Your task to perform on an android device: set the stopwatch Image 0: 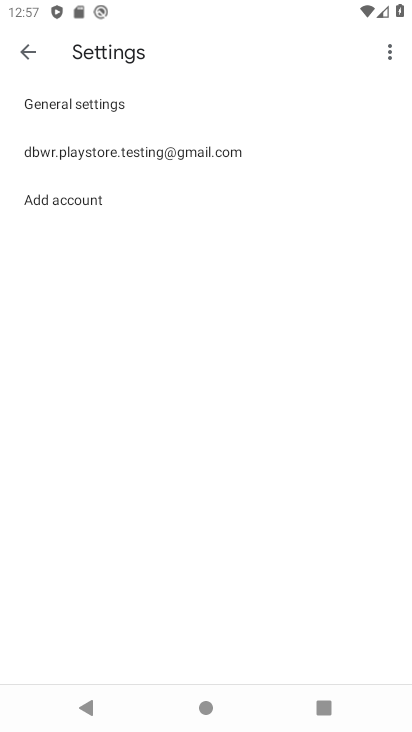
Step 0: press home button
Your task to perform on an android device: set the stopwatch Image 1: 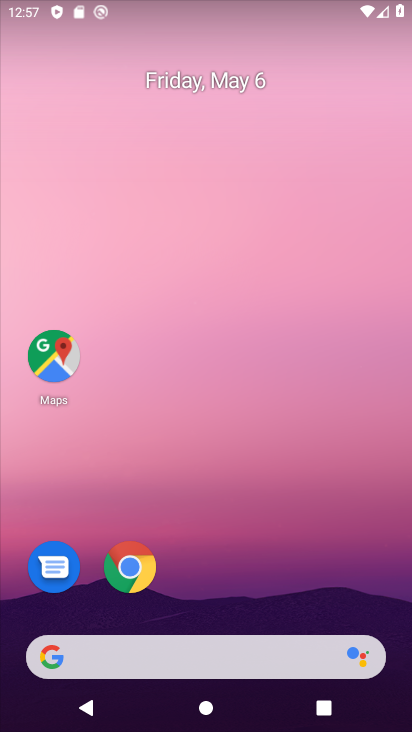
Step 1: drag from (280, 679) to (226, 280)
Your task to perform on an android device: set the stopwatch Image 2: 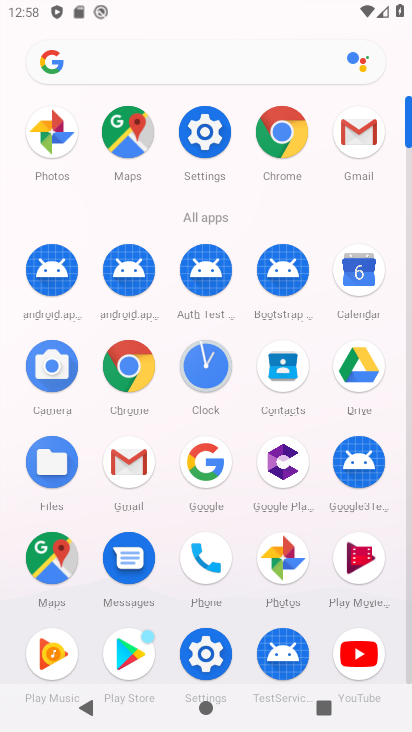
Step 2: click (186, 147)
Your task to perform on an android device: set the stopwatch Image 3: 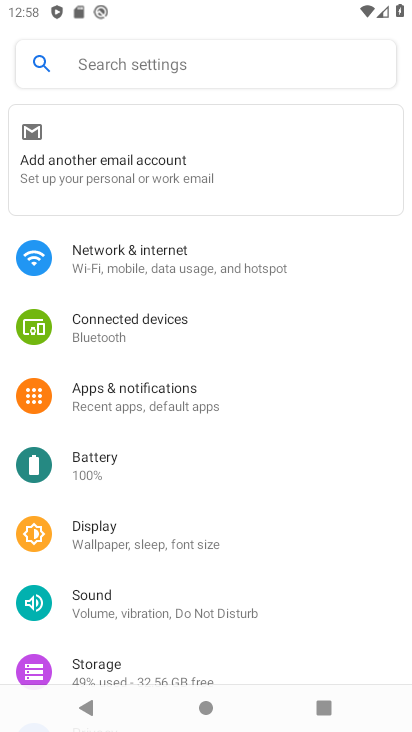
Step 3: press home button
Your task to perform on an android device: set the stopwatch Image 4: 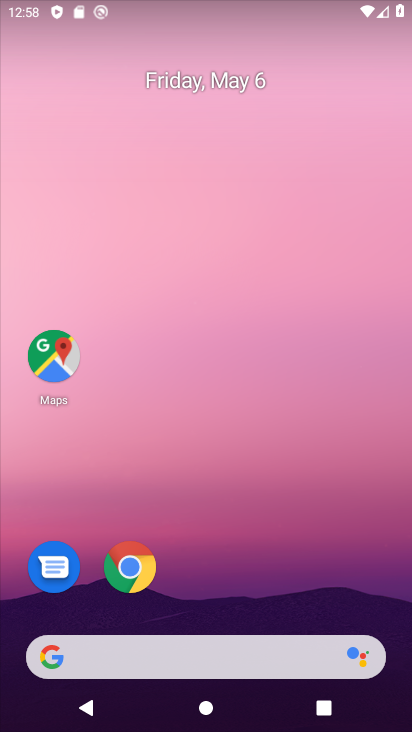
Step 4: drag from (322, 694) to (252, 268)
Your task to perform on an android device: set the stopwatch Image 5: 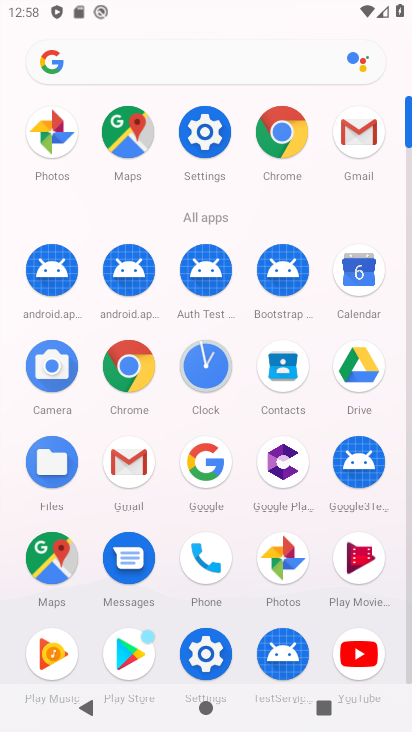
Step 5: click (215, 371)
Your task to perform on an android device: set the stopwatch Image 6: 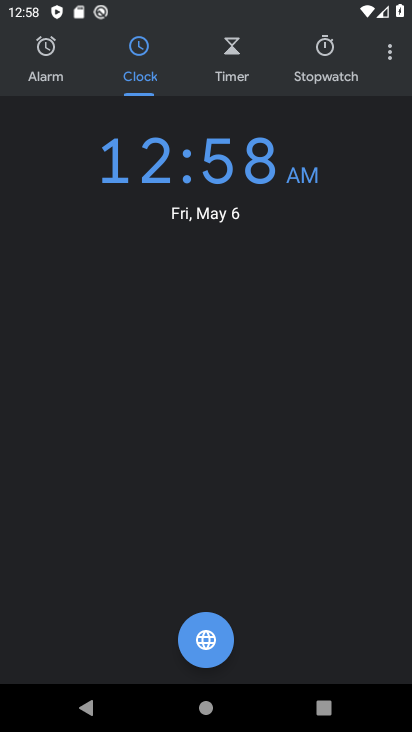
Step 6: click (332, 65)
Your task to perform on an android device: set the stopwatch Image 7: 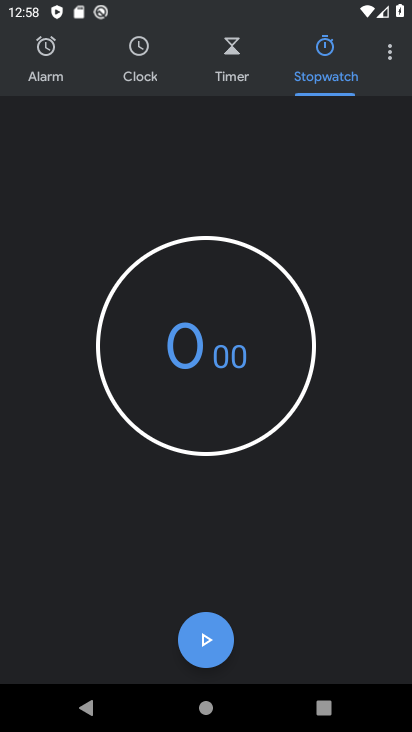
Step 7: click (210, 639)
Your task to perform on an android device: set the stopwatch Image 8: 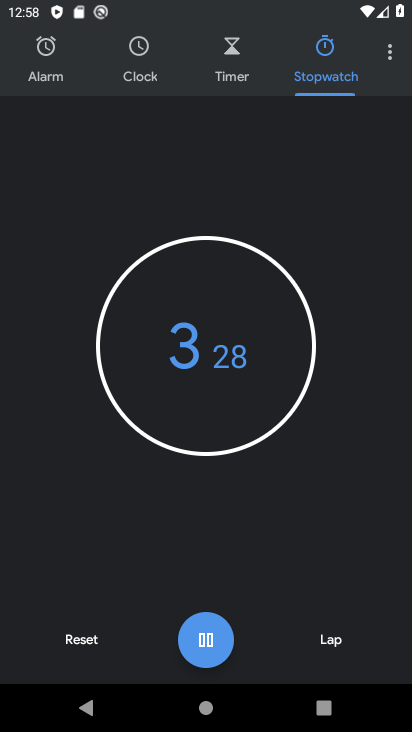
Step 8: click (220, 641)
Your task to perform on an android device: set the stopwatch Image 9: 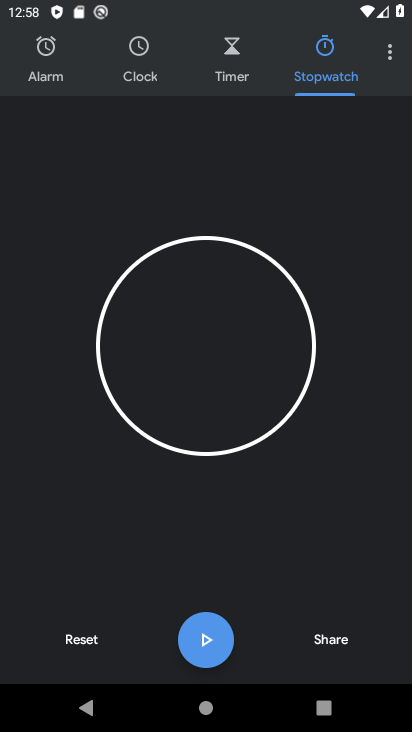
Step 9: task complete